Your task to perform on an android device: Go to wifi settings Image 0: 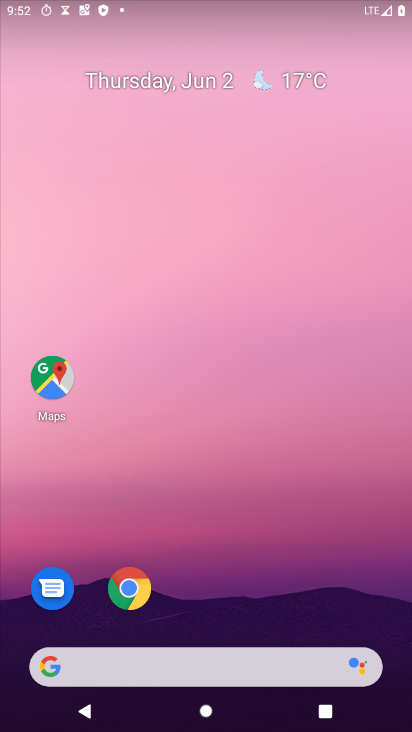
Step 0: drag from (73, 11) to (95, 412)
Your task to perform on an android device: Go to wifi settings Image 1: 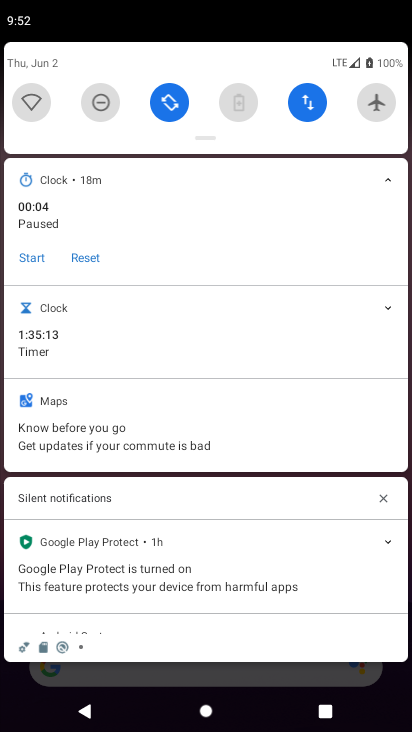
Step 1: click (36, 99)
Your task to perform on an android device: Go to wifi settings Image 2: 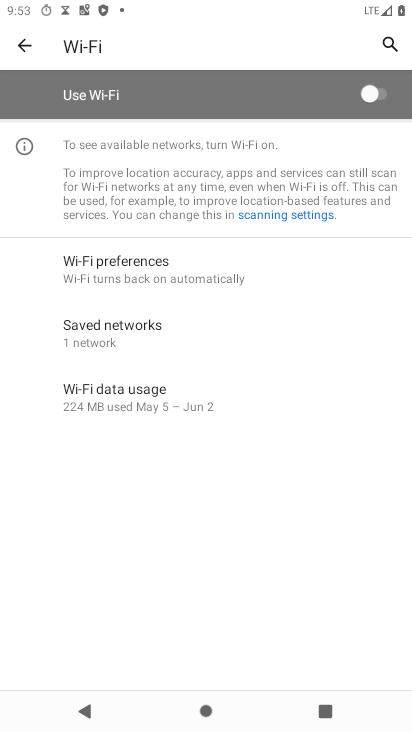
Step 2: task complete